Your task to perform on an android device: all mails in gmail Image 0: 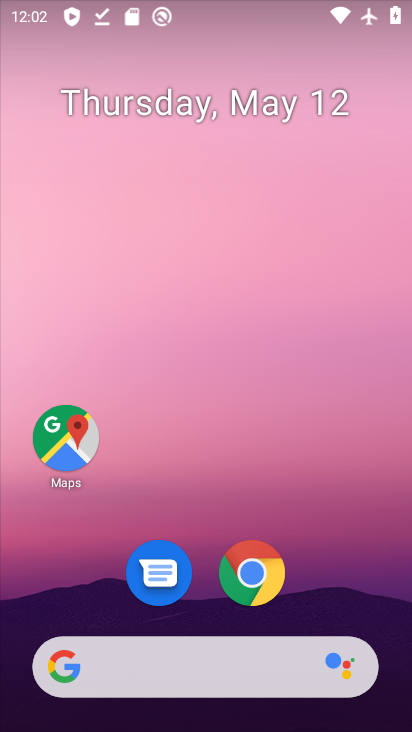
Step 0: drag from (323, 517) to (323, 208)
Your task to perform on an android device: all mails in gmail Image 1: 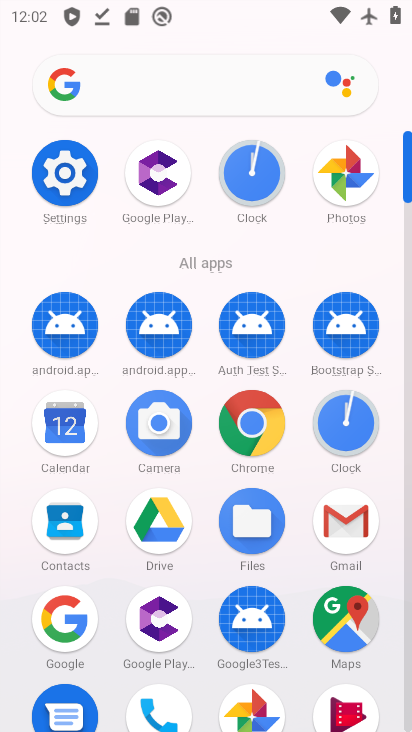
Step 1: click (329, 516)
Your task to perform on an android device: all mails in gmail Image 2: 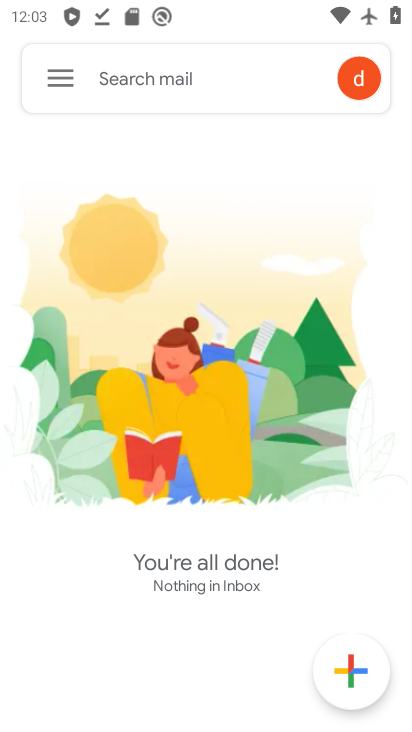
Step 2: click (53, 87)
Your task to perform on an android device: all mails in gmail Image 3: 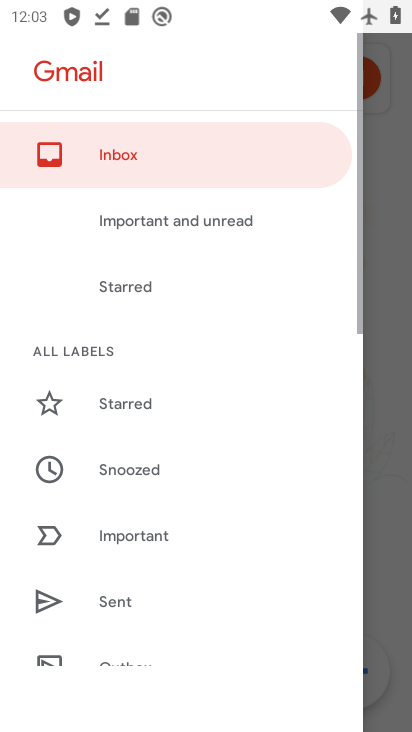
Step 3: drag from (143, 616) to (164, 181)
Your task to perform on an android device: all mails in gmail Image 4: 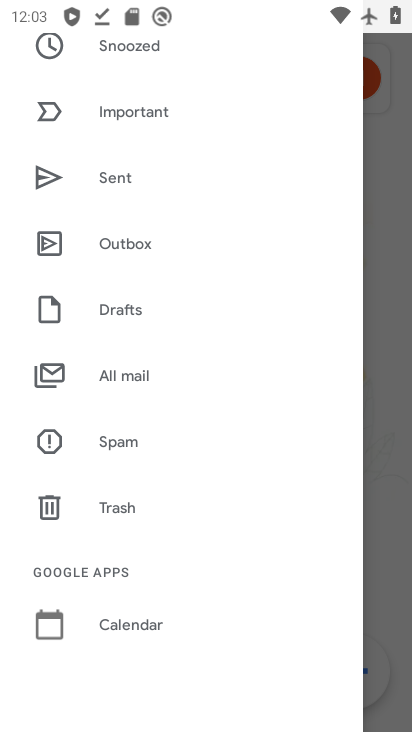
Step 4: click (145, 433)
Your task to perform on an android device: all mails in gmail Image 5: 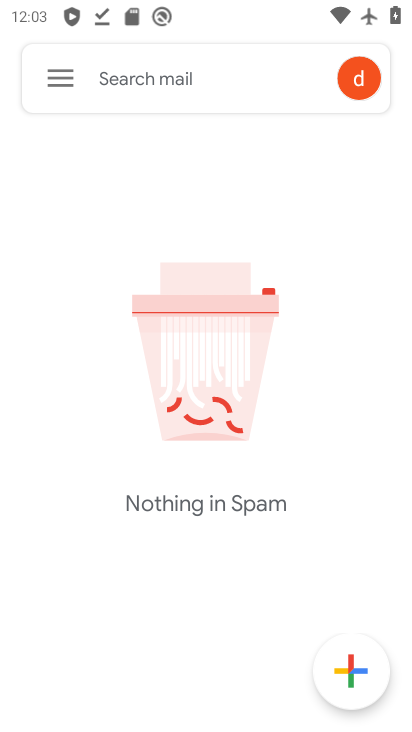
Step 5: task complete